Your task to perform on an android device: turn off data saver in the chrome app Image 0: 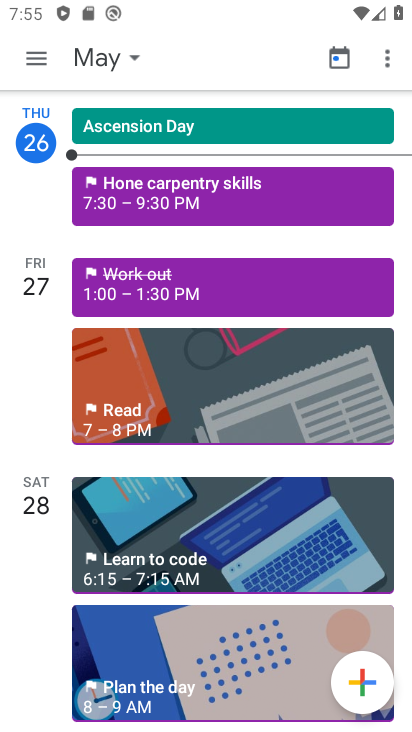
Step 0: press home button
Your task to perform on an android device: turn off data saver in the chrome app Image 1: 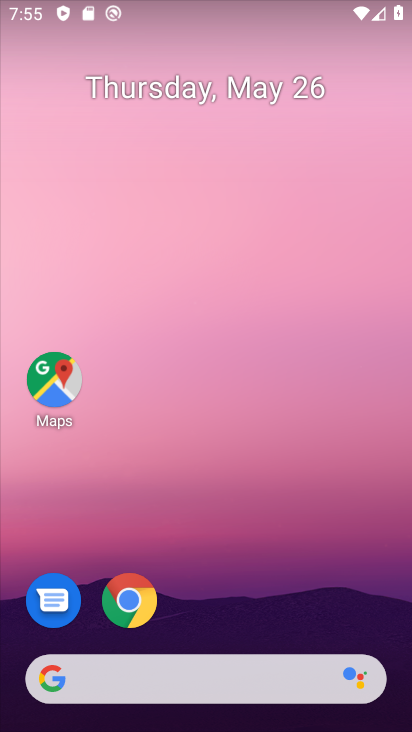
Step 1: click (134, 598)
Your task to perform on an android device: turn off data saver in the chrome app Image 2: 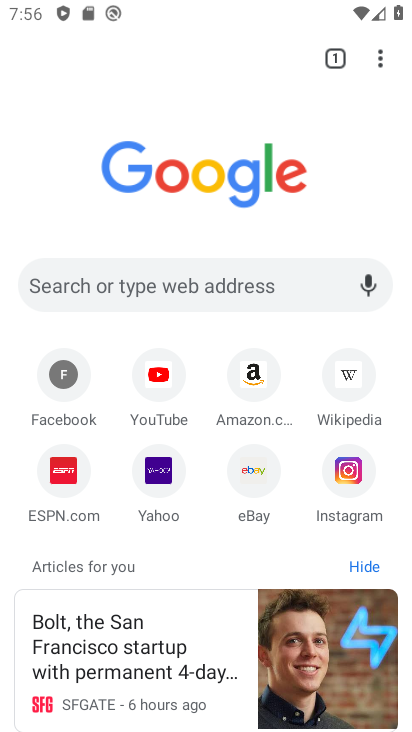
Step 2: click (397, 51)
Your task to perform on an android device: turn off data saver in the chrome app Image 3: 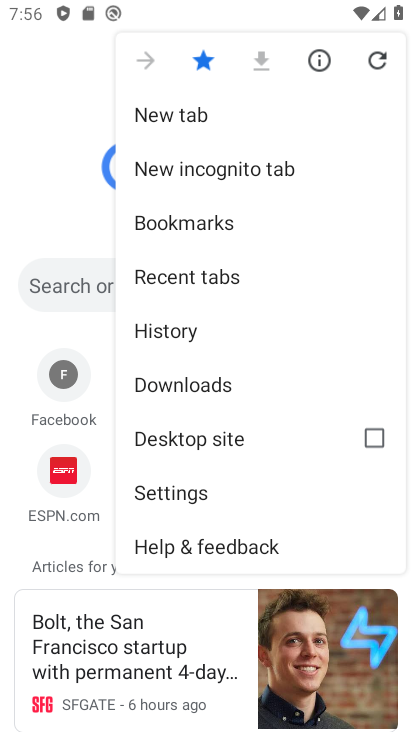
Step 3: click (169, 502)
Your task to perform on an android device: turn off data saver in the chrome app Image 4: 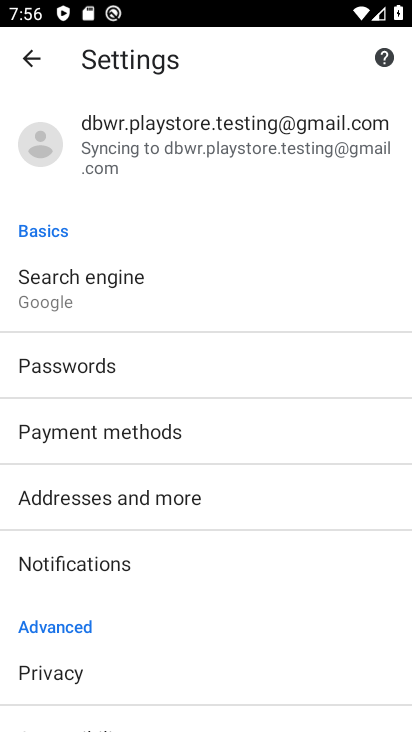
Step 4: drag from (169, 681) to (133, 312)
Your task to perform on an android device: turn off data saver in the chrome app Image 5: 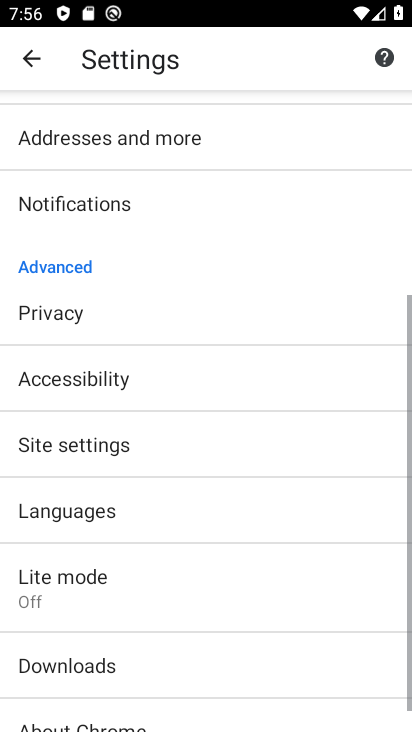
Step 5: click (204, 456)
Your task to perform on an android device: turn off data saver in the chrome app Image 6: 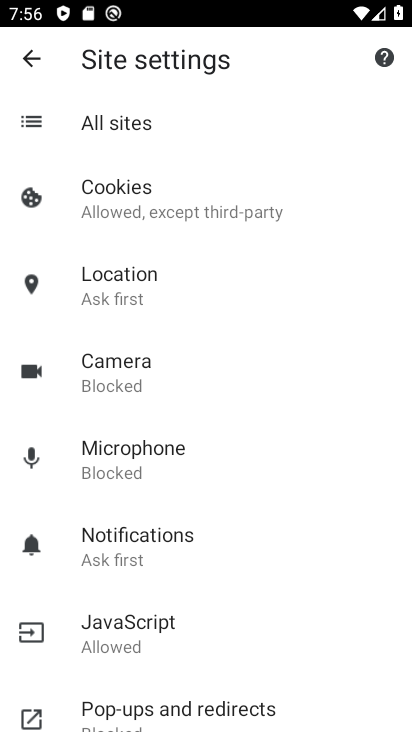
Step 6: click (28, 42)
Your task to perform on an android device: turn off data saver in the chrome app Image 7: 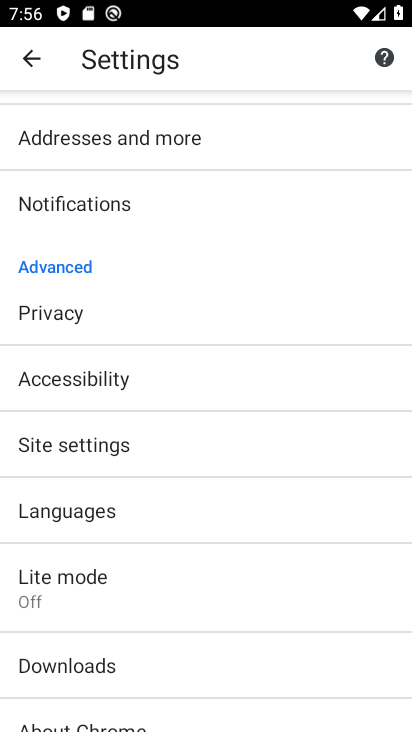
Step 7: click (126, 588)
Your task to perform on an android device: turn off data saver in the chrome app Image 8: 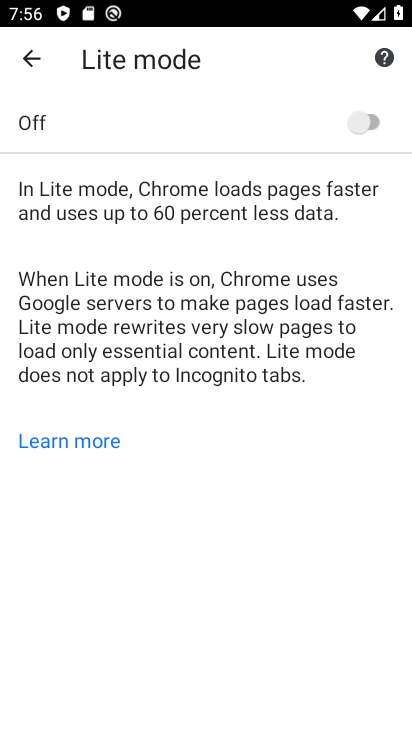
Step 8: task complete